Your task to perform on an android device: open a bookmark in the chrome app Image 0: 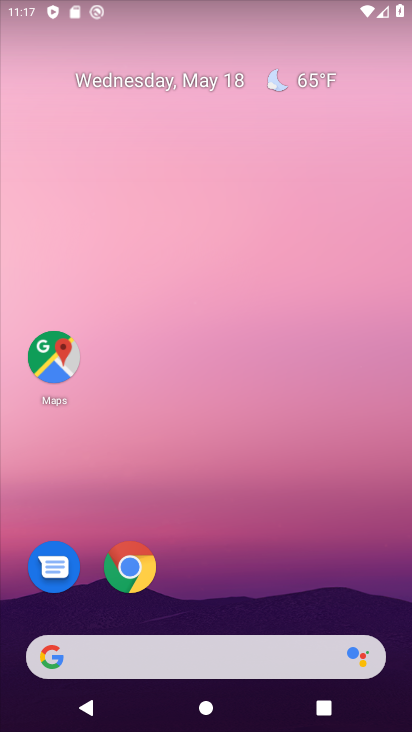
Step 0: click (137, 558)
Your task to perform on an android device: open a bookmark in the chrome app Image 1: 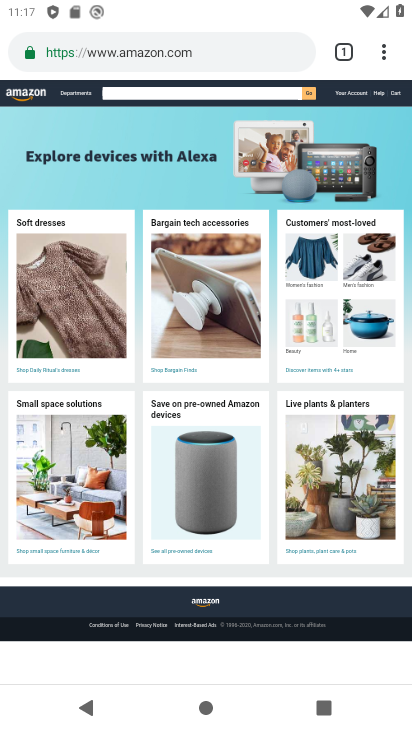
Step 1: click (387, 49)
Your task to perform on an android device: open a bookmark in the chrome app Image 2: 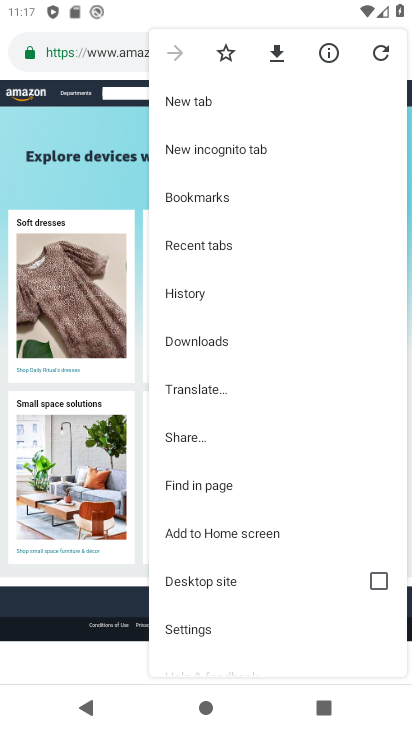
Step 2: click (196, 194)
Your task to perform on an android device: open a bookmark in the chrome app Image 3: 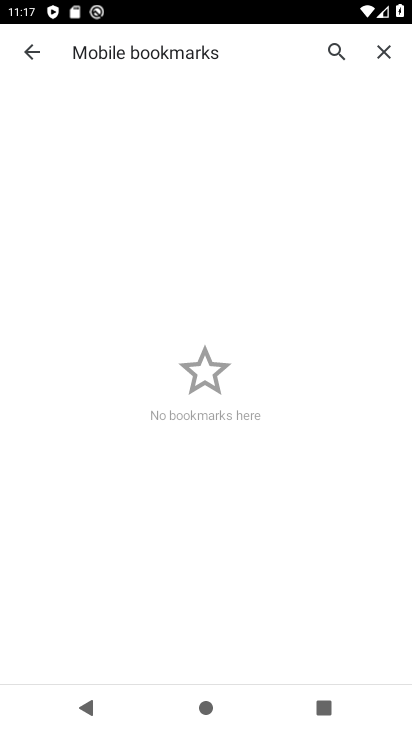
Step 3: task complete